Your task to perform on an android device: Open calendar and show me the first week of next month Image 0: 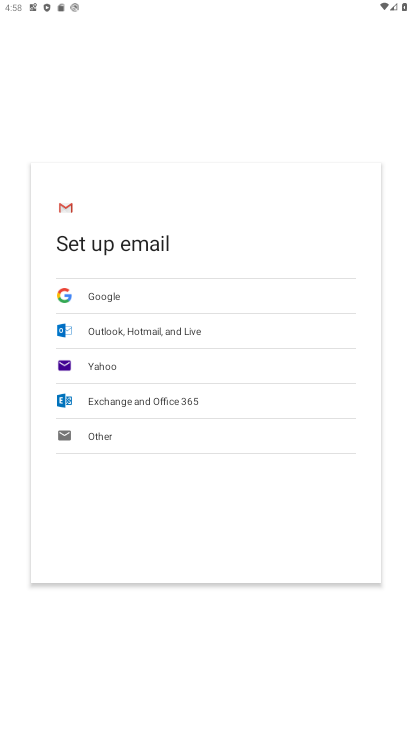
Step 0: press home button
Your task to perform on an android device: Open calendar and show me the first week of next month Image 1: 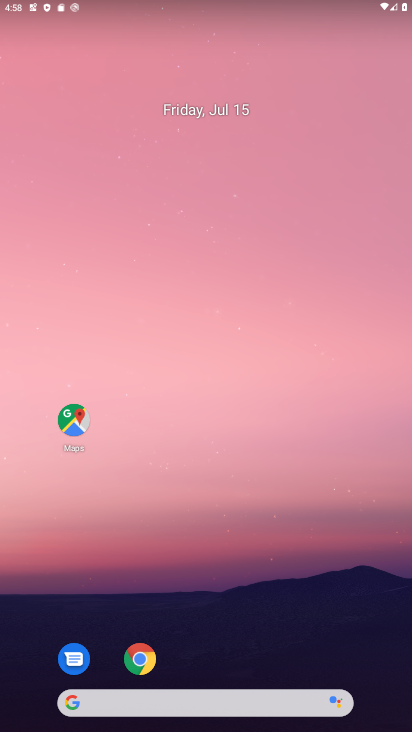
Step 1: drag from (357, 560) to (253, 7)
Your task to perform on an android device: Open calendar and show me the first week of next month Image 2: 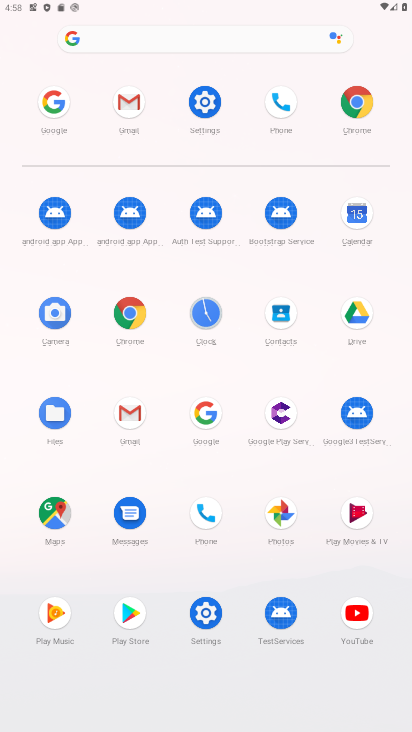
Step 2: click (354, 228)
Your task to perform on an android device: Open calendar and show me the first week of next month Image 3: 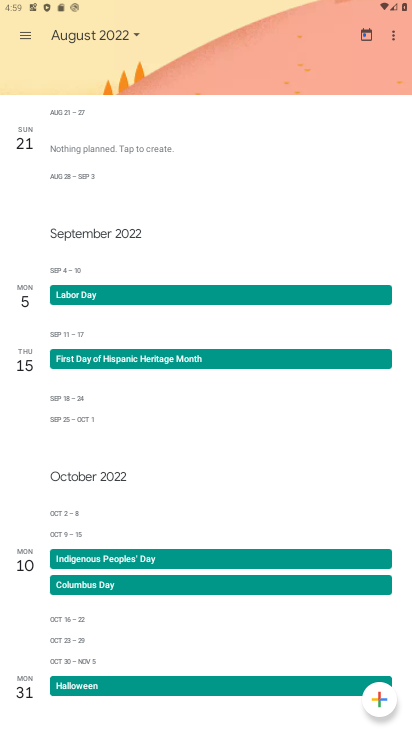
Step 3: click (108, 47)
Your task to perform on an android device: Open calendar and show me the first week of next month Image 4: 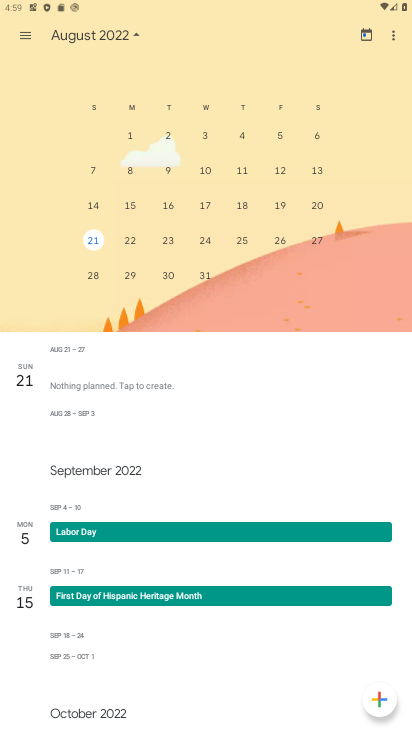
Step 4: drag from (274, 146) to (260, 5)
Your task to perform on an android device: Open calendar and show me the first week of next month Image 5: 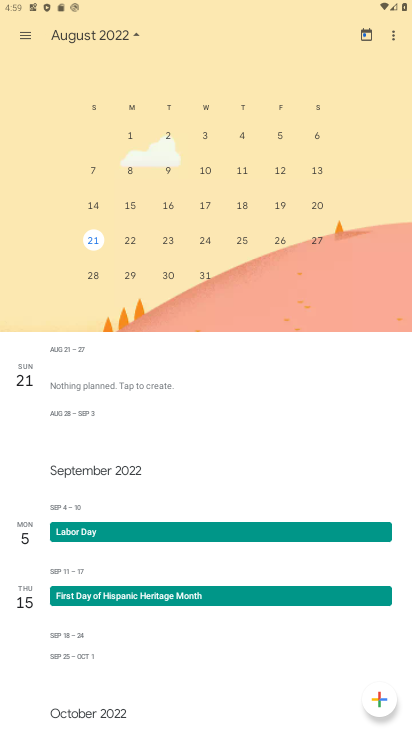
Step 5: click (312, 129)
Your task to perform on an android device: Open calendar and show me the first week of next month Image 6: 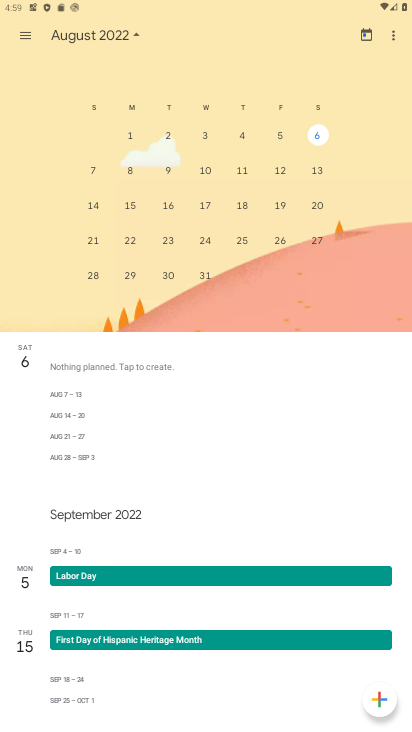
Step 6: task complete